Your task to perform on an android device: visit the assistant section in the google photos Image 0: 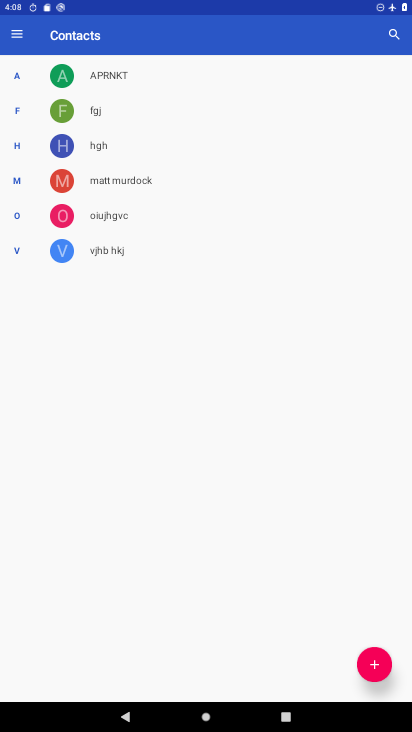
Step 0: press home button
Your task to perform on an android device: visit the assistant section in the google photos Image 1: 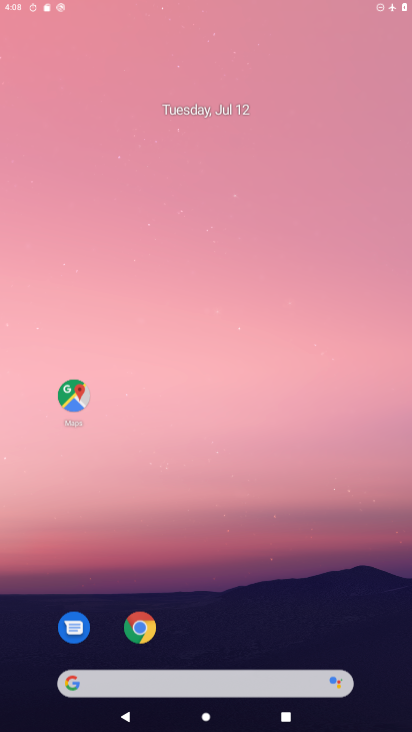
Step 1: drag from (288, 569) to (299, 21)
Your task to perform on an android device: visit the assistant section in the google photos Image 2: 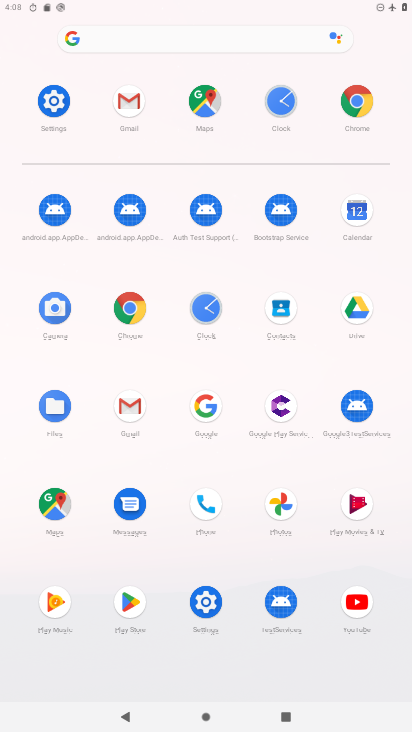
Step 2: click (277, 504)
Your task to perform on an android device: visit the assistant section in the google photos Image 3: 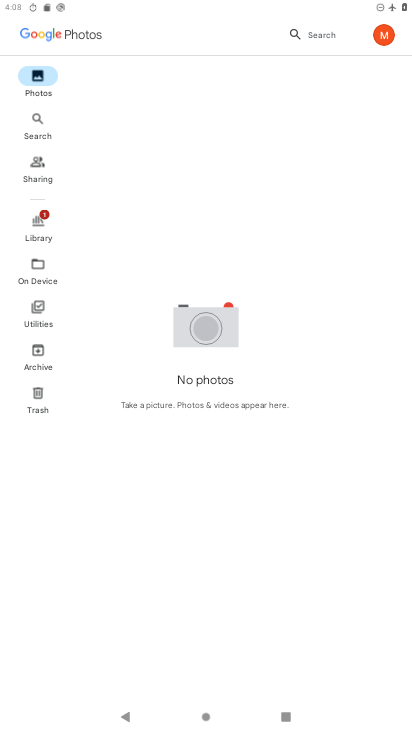
Step 3: click (54, 87)
Your task to perform on an android device: visit the assistant section in the google photos Image 4: 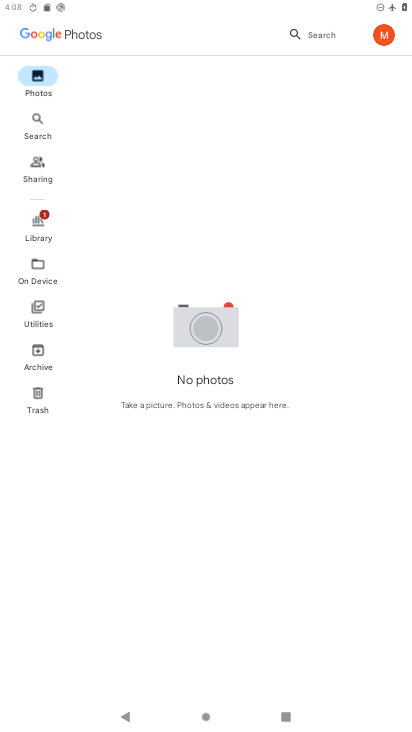
Step 4: task complete